Your task to perform on an android device: Is it going to rain tomorrow? Image 0: 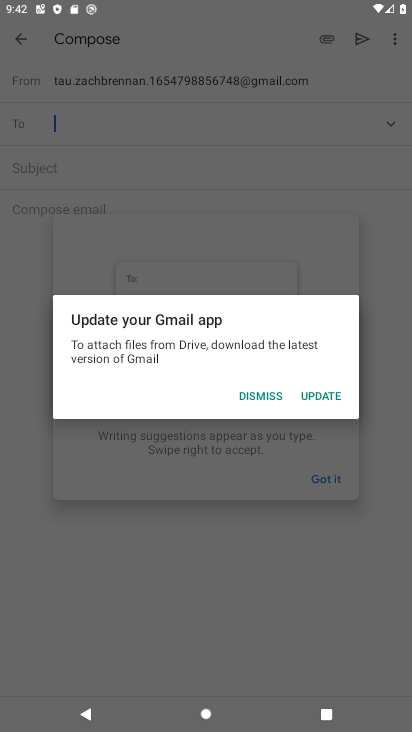
Step 0: press home button
Your task to perform on an android device: Is it going to rain tomorrow? Image 1: 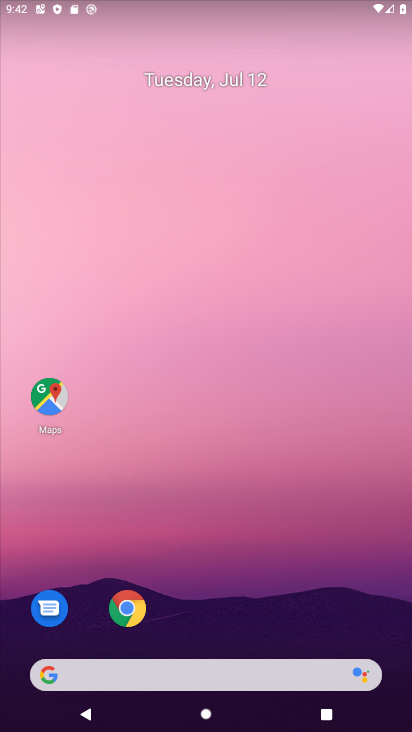
Step 1: click (146, 670)
Your task to perform on an android device: Is it going to rain tomorrow? Image 2: 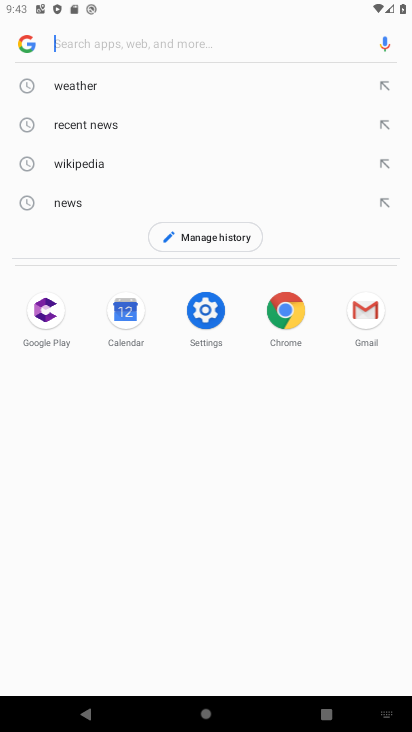
Step 2: type "is it going to rain tomorrow?"
Your task to perform on an android device: Is it going to rain tomorrow? Image 3: 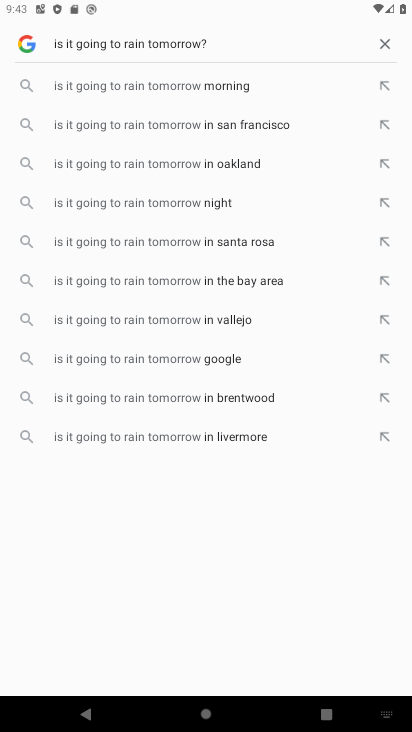
Step 3: click (203, 369)
Your task to perform on an android device: Is it going to rain tomorrow? Image 4: 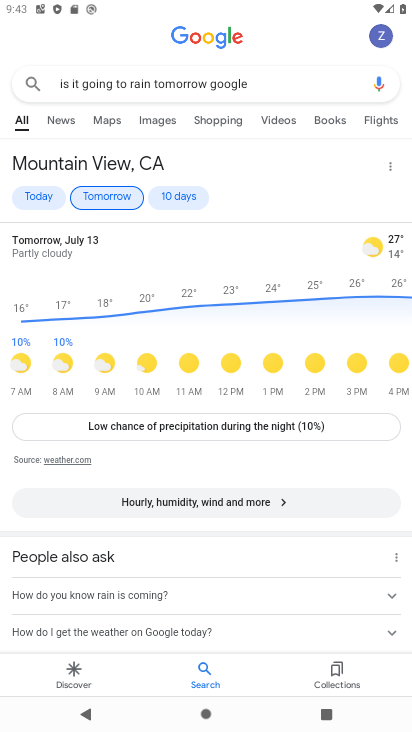
Step 4: task complete